Your task to perform on an android device: change the clock display to digital Image 0: 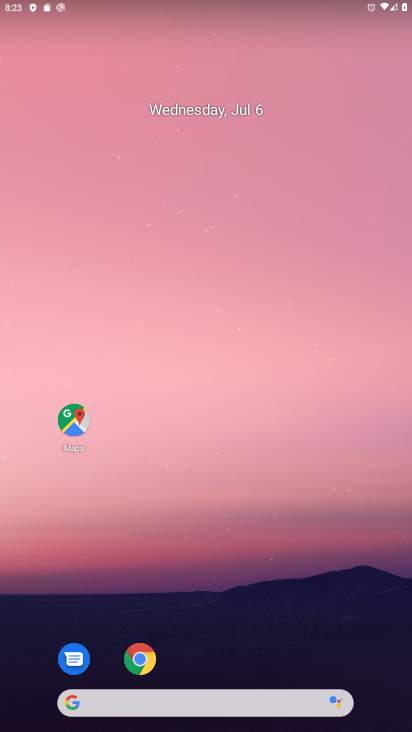
Step 0: drag from (268, 658) to (316, 84)
Your task to perform on an android device: change the clock display to digital Image 1: 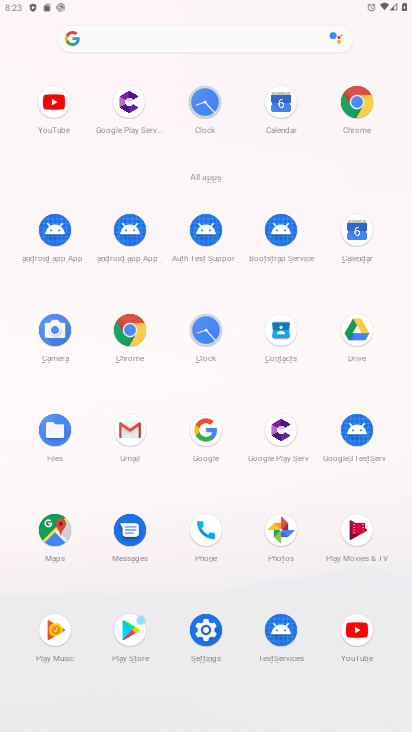
Step 1: click (211, 335)
Your task to perform on an android device: change the clock display to digital Image 2: 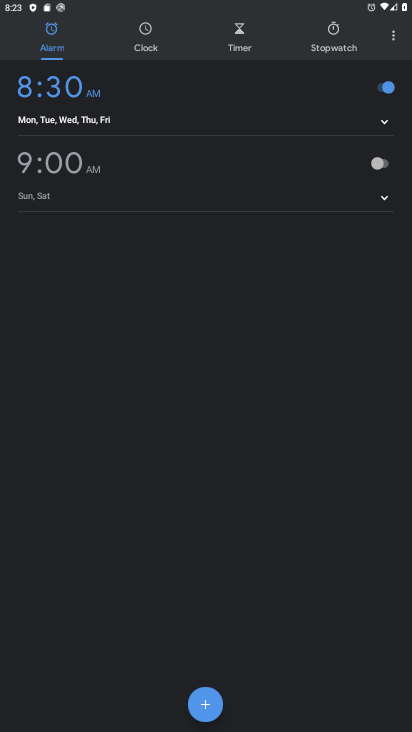
Step 2: click (391, 41)
Your task to perform on an android device: change the clock display to digital Image 3: 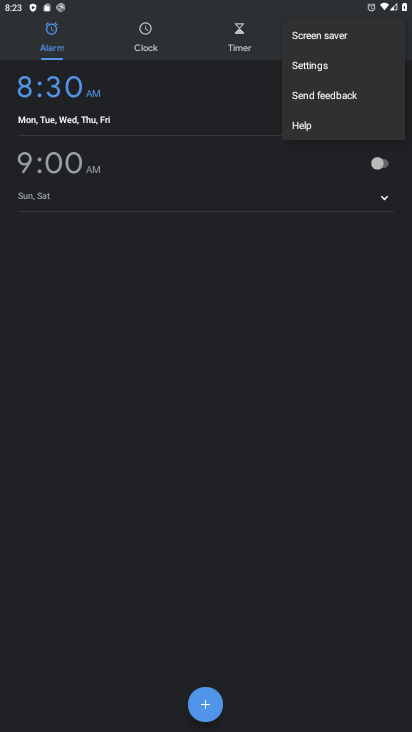
Step 3: click (336, 72)
Your task to perform on an android device: change the clock display to digital Image 4: 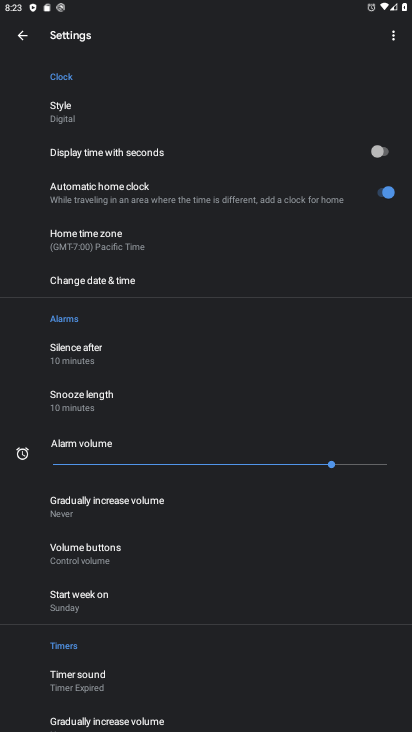
Step 4: drag from (209, 673) to (284, 276)
Your task to perform on an android device: change the clock display to digital Image 5: 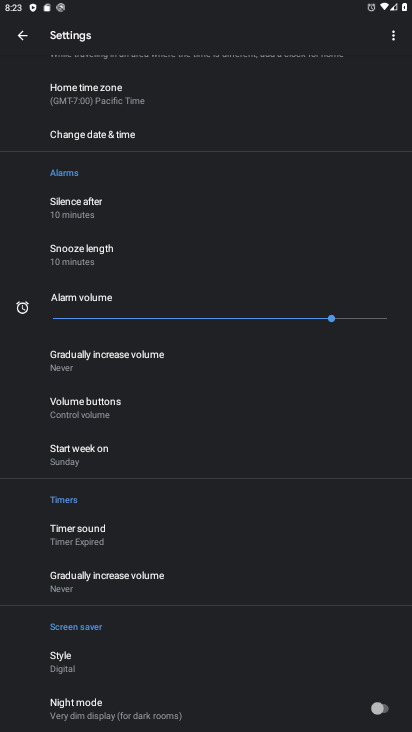
Step 5: drag from (185, 172) to (146, 663)
Your task to perform on an android device: change the clock display to digital Image 6: 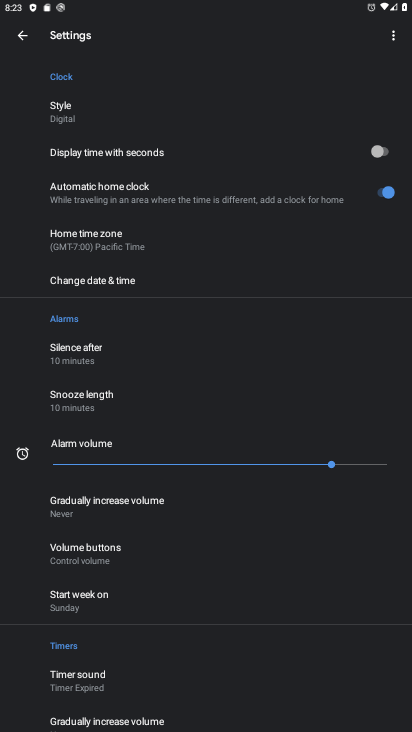
Step 6: click (85, 108)
Your task to perform on an android device: change the clock display to digital Image 7: 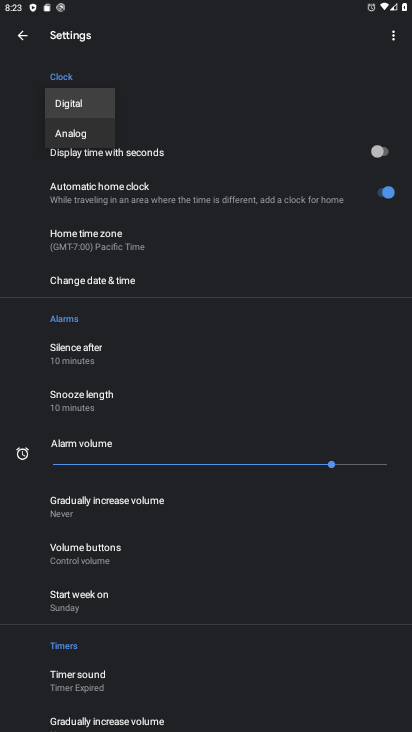
Step 7: task complete